Your task to perform on an android device: all mails in gmail Image 0: 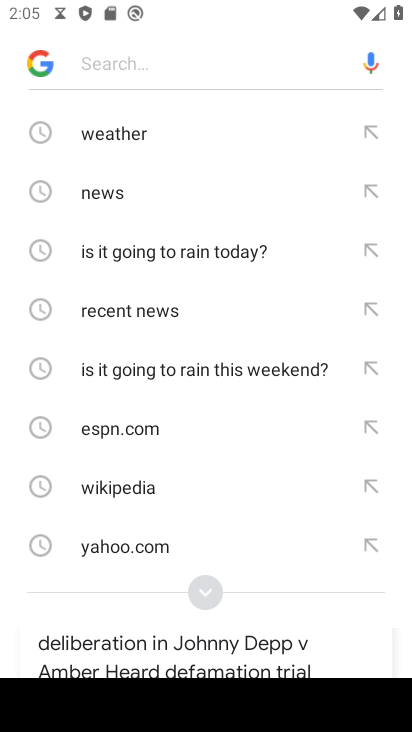
Step 0: press home button
Your task to perform on an android device: all mails in gmail Image 1: 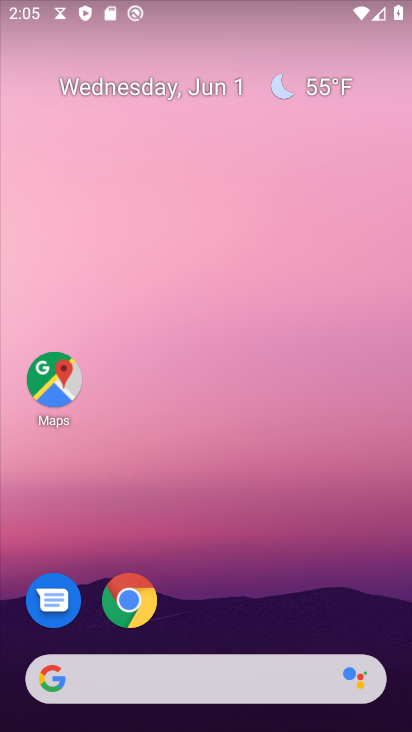
Step 1: drag from (255, 604) to (216, 230)
Your task to perform on an android device: all mails in gmail Image 2: 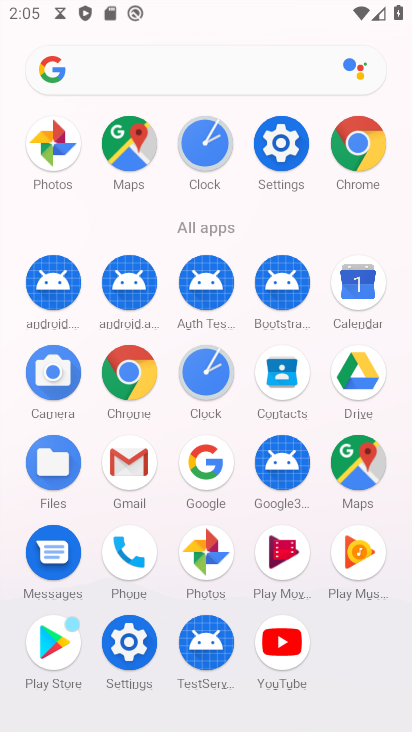
Step 2: click (132, 469)
Your task to perform on an android device: all mails in gmail Image 3: 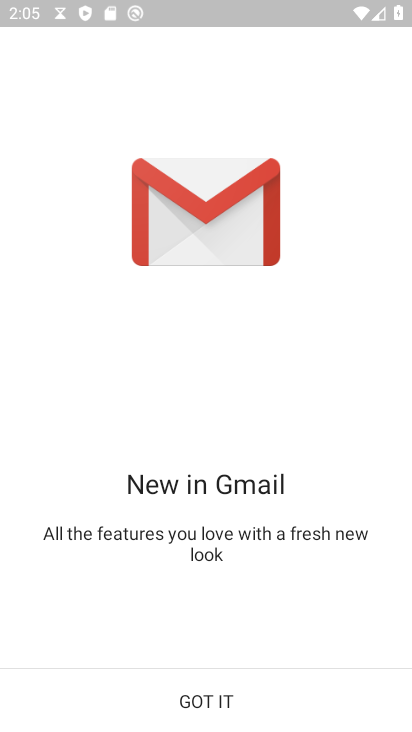
Step 3: click (212, 702)
Your task to perform on an android device: all mails in gmail Image 4: 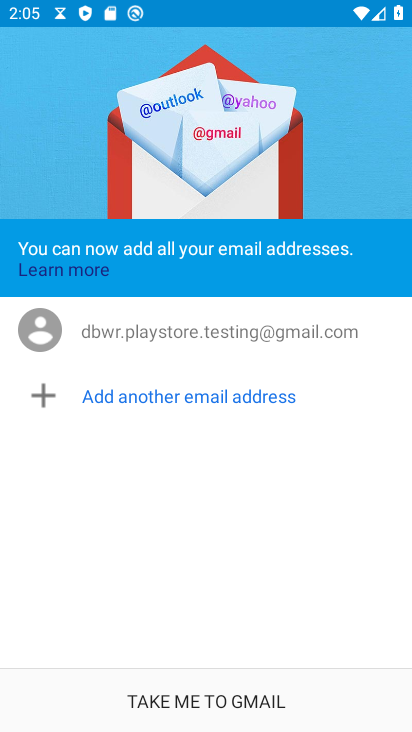
Step 4: click (212, 702)
Your task to perform on an android device: all mails in gmail Image 5: 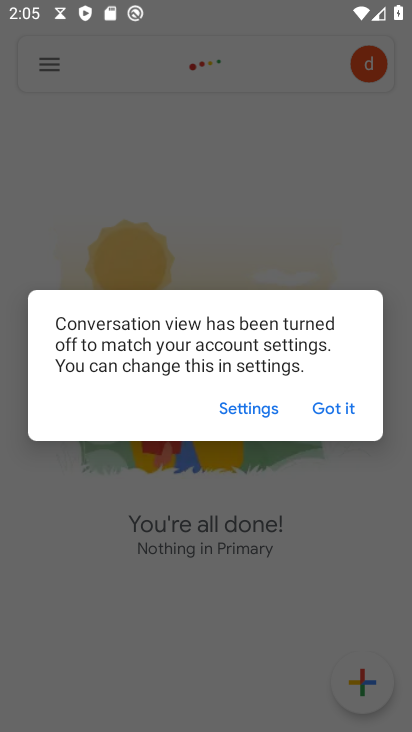
Step 5: click (346, 410)
Your task to perform on an android device: all mails in gmail Image 6: 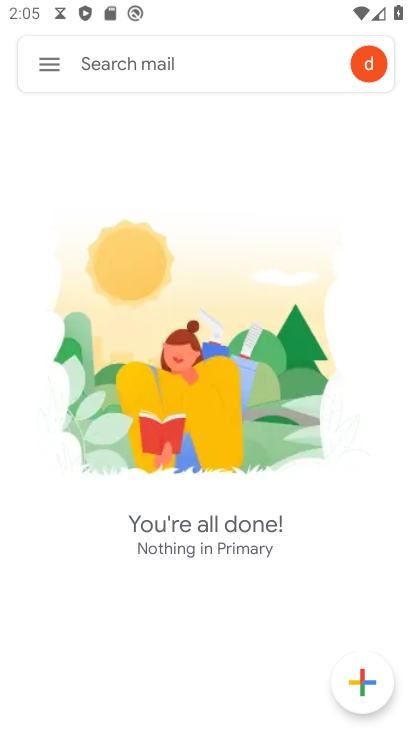
Step 6: click (53, 73)
Your task to perform on an android device: all mails in gmail Image 7: 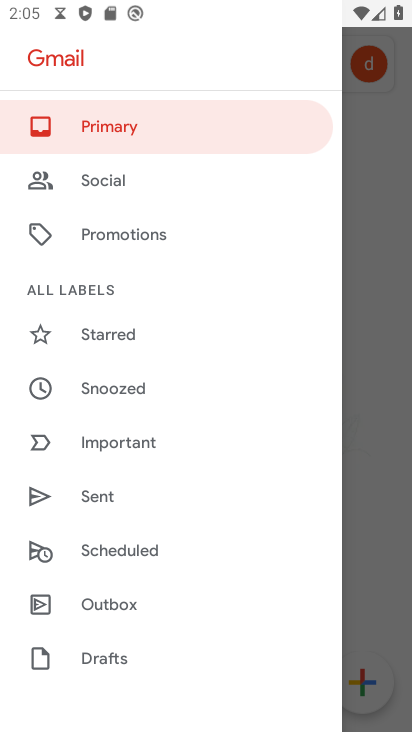
Step 7: drag from (81, 673) to (67, 161)
Your task to perform on an android device: all mails in gmail Image 8: 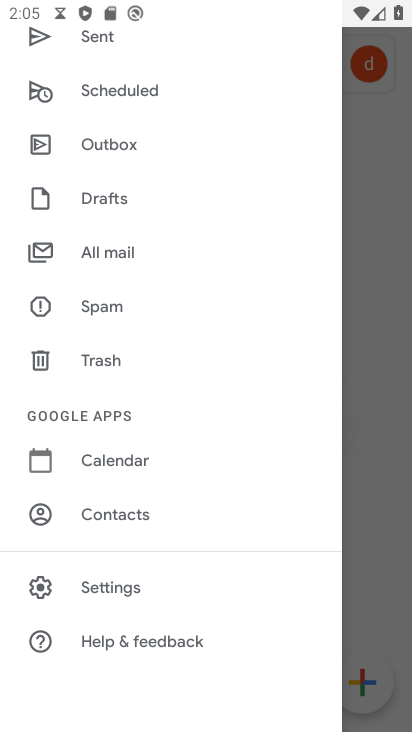
Step 8: click (99, 244)
Your task to perform on an android device: all mails in gmail Image 9: 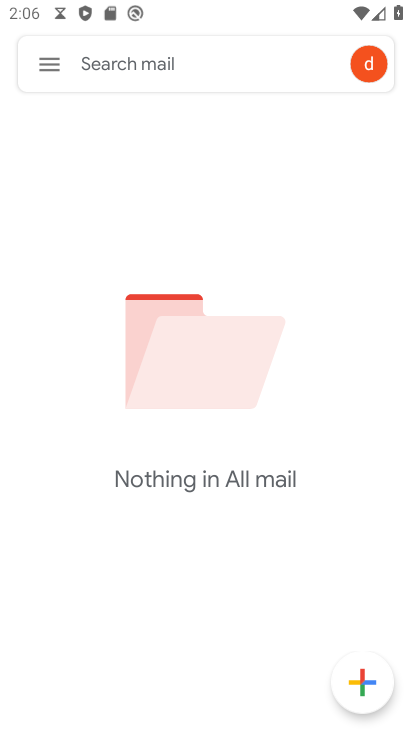
Step 9: task complete